Your task to perform on an android device: Go to Yahoo.com Image 0: 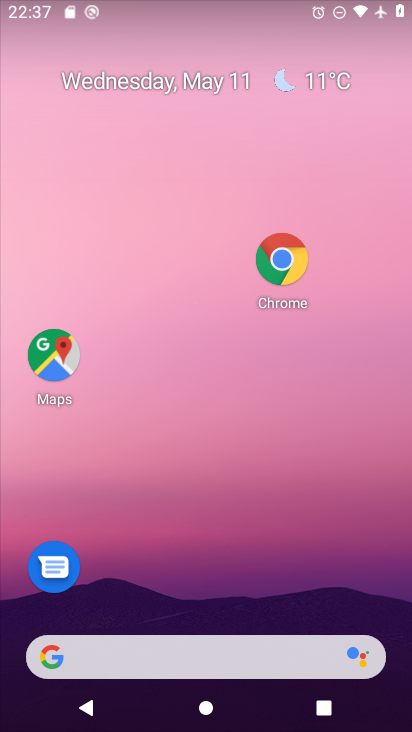
Step 0: press home button
Your task to perform on an android device: Go to Yahoo.com Image 1: 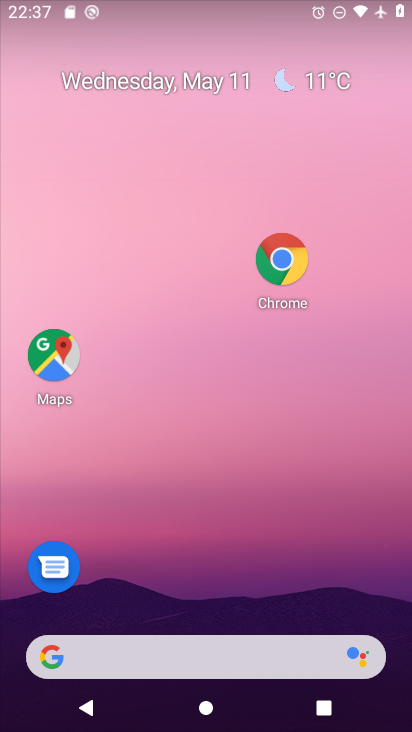
Step 1: drag from (154, 653) to (247, 350)
Your task to perform on an android device: Go to Yahoo.com Image 2: 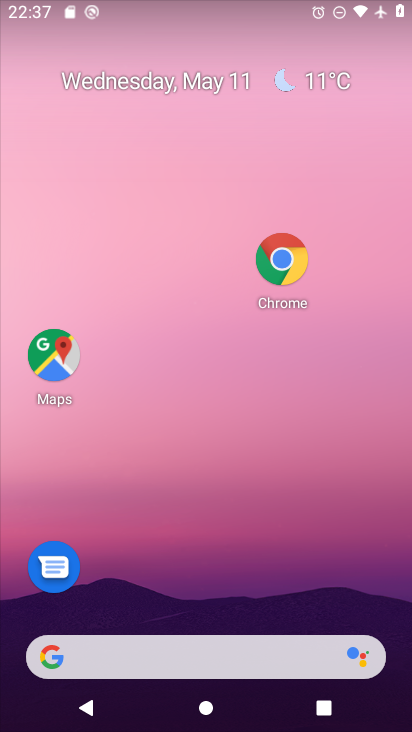
Step 2: click (276, 276)
Your task to perform on an android device: Go to Yahoo.com Image 3: 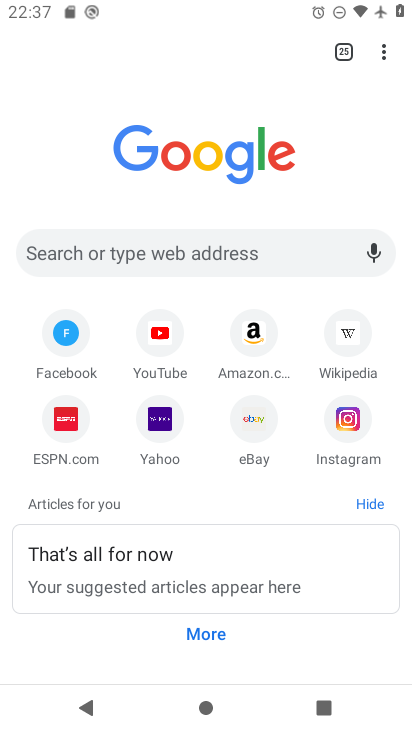
Step 3: click (161, 418)
Your task to perform on an android device: Go to Yahoo.com Image 4: 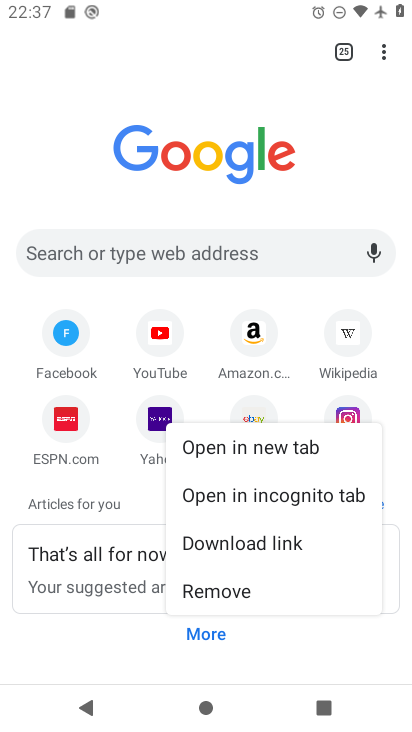
Step 4: click (151, 426)
Your task to perform on an android device: Go to Yahoo.com Image 5: 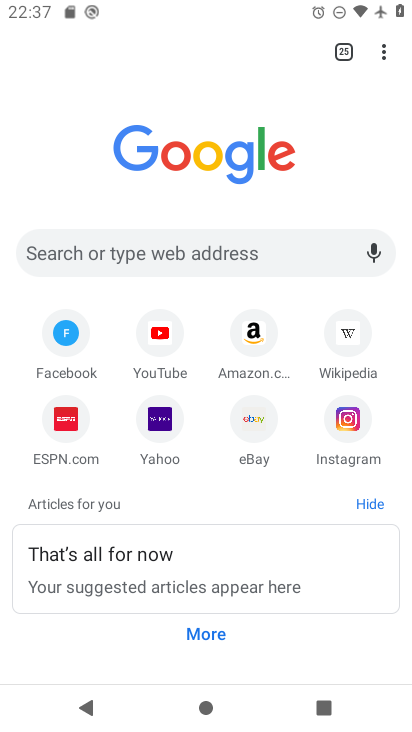
Step 5: click (157, 418)
Your task to perform on an android device: Go to Yahoo.com Image 6: 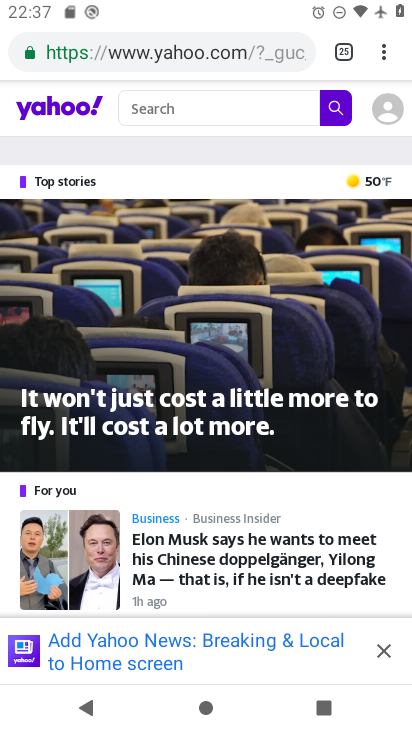
Step 6: task complete